Your task to perform on an android device: Open sound settings Image 0: 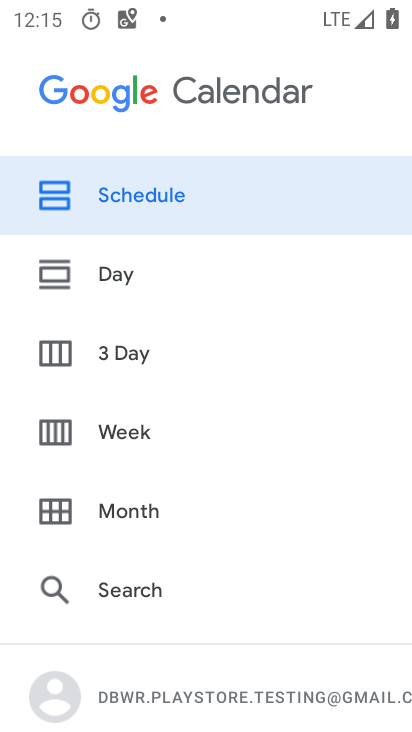
Step 0: press home button
Your task to perform on an android device: Open sound settings Image 1: 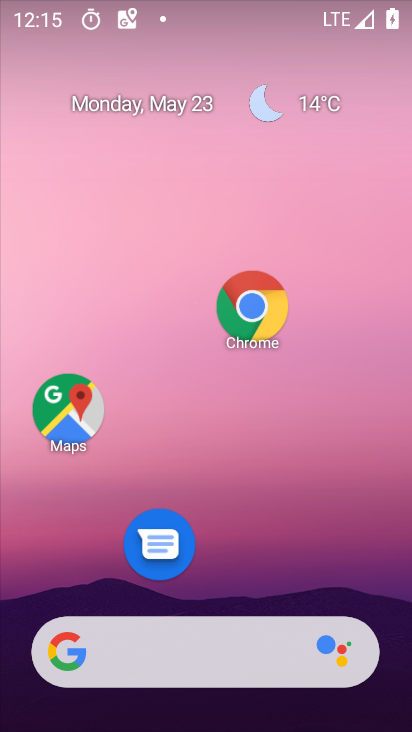
Step 1: drag from (251, 565) to (245, 110)
Your task to perform on an android device: Open sound settings Image 2: 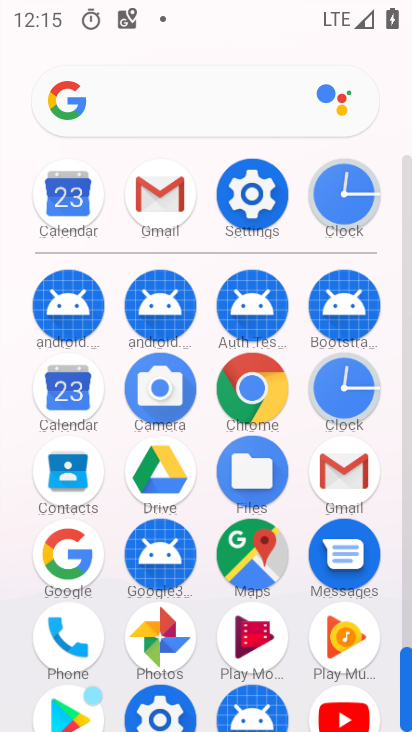
Step 2: click (244, 204)
Your task to perform on an android device: Open sound settings Image 3: 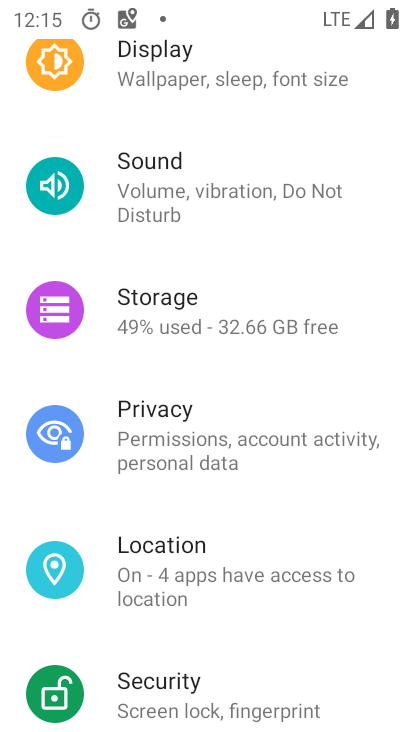
Step 3: drag from (224, 621) to (224, 375)
Your task to perform on an android device: Open sound settings Image 4: 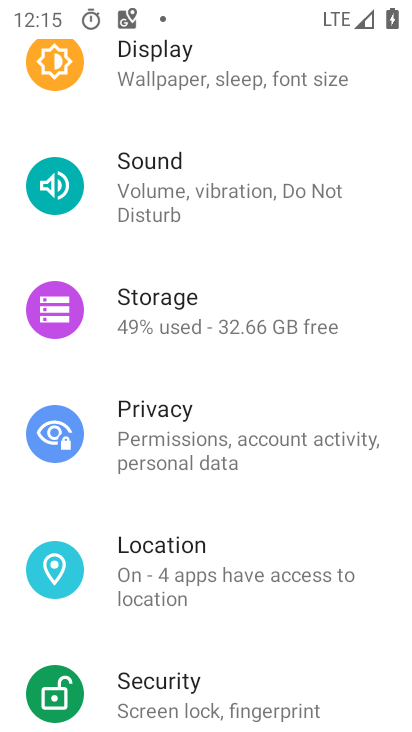
Step 4: click (197, 188)
Your task to perform on an android device: Open sound settings Image 5: 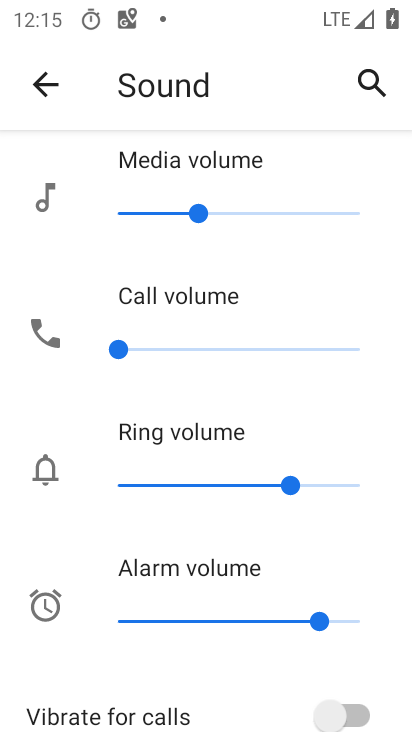
Step 5: task complete